Your task to perform on an android device: Open wifi settings Image 0: 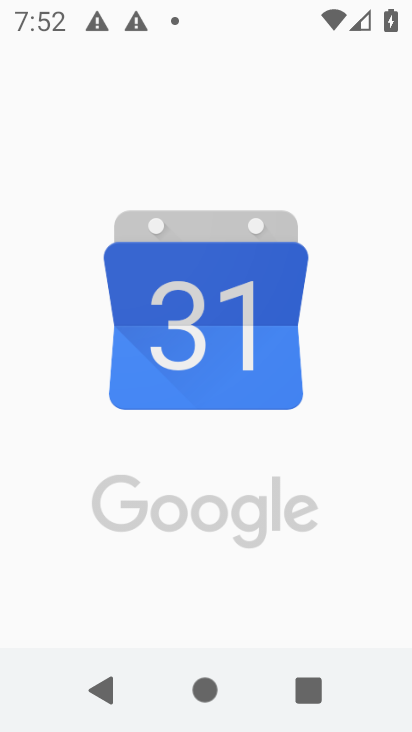
Step 0: press home button
Your task to perform on an android device: Open wifi settings Image 1: 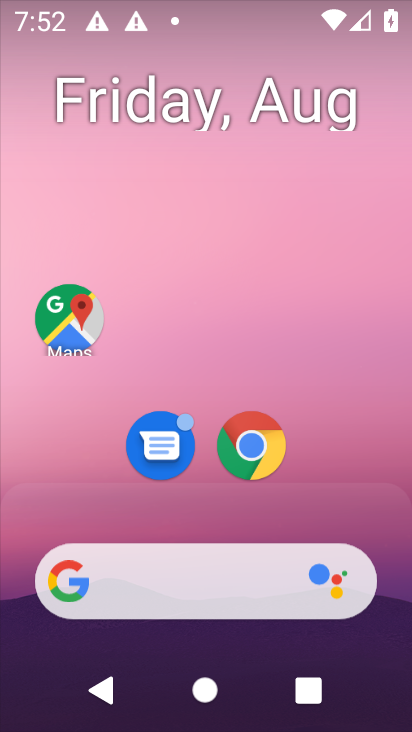
Step 1: drag from (196, 245) to (247, 10)
Your task to perform on an android device: Open wifi settings Image 2: 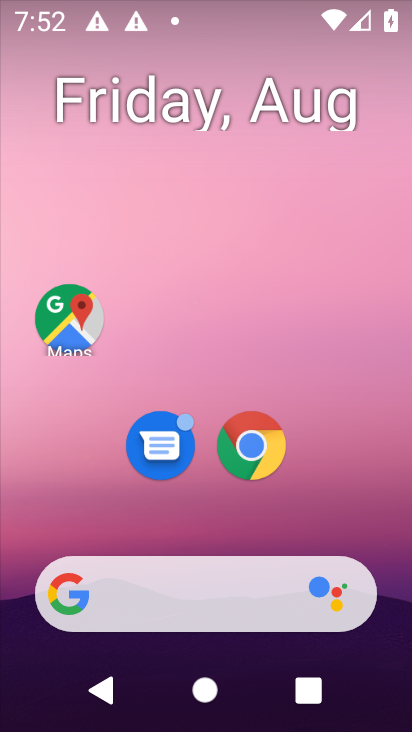
Step 2: drag from (194, 531) to (207, 256)
Your task to perform on an android device: Open wifi settings Image 3: 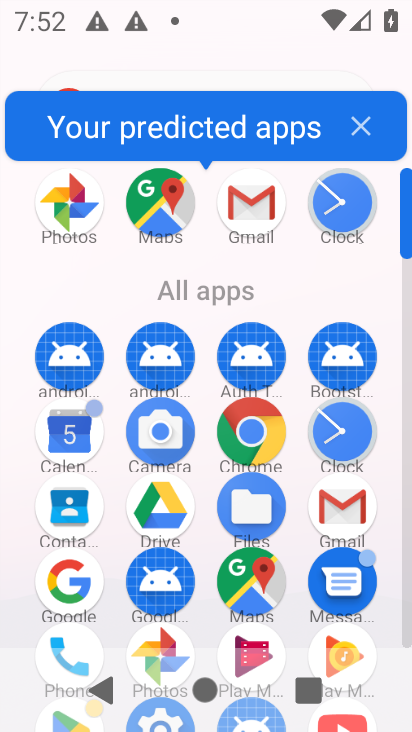
Step 3: drag from (107, 475) to (128, 230)
Your task to perform on an android device: Open wifi settings Image 4: 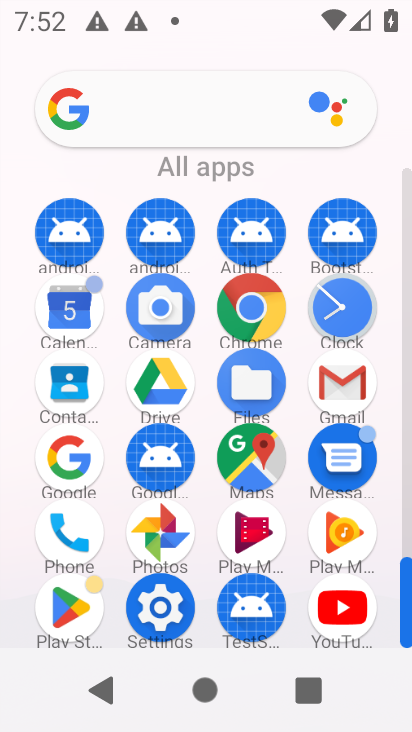
Step 4: click (157, 588)
Your task to perform on an android device: Open wifi settings Image 5: 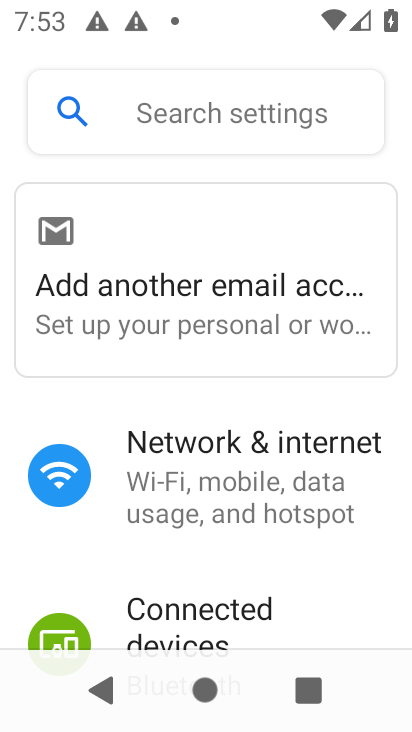
Step 5: click (211, 442)
Your task to perform on an android device: Open wifi settings Image 6: 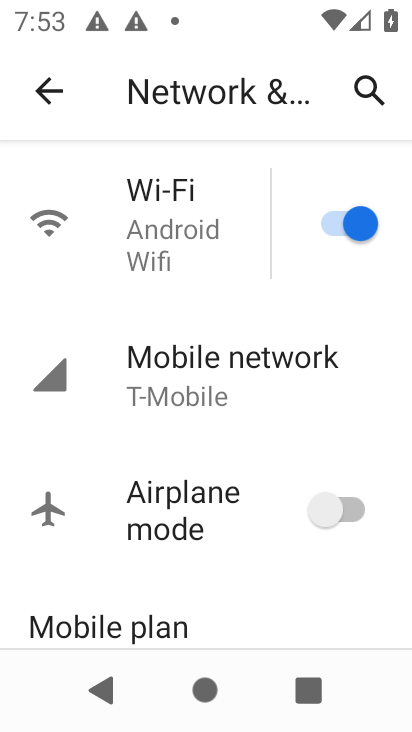
Step 6: click (178, 202)
Your task to perform on an android device: Open wifi settings Image 7: 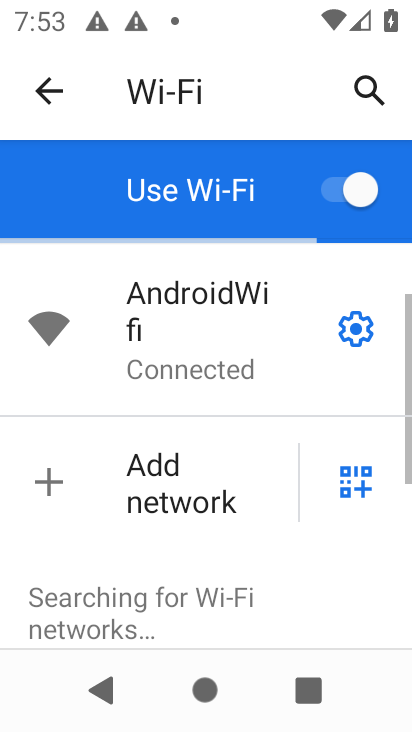
Step 7: task complete